Your task to perform on an android device: make emails show in primary in the gmail app Image 0: 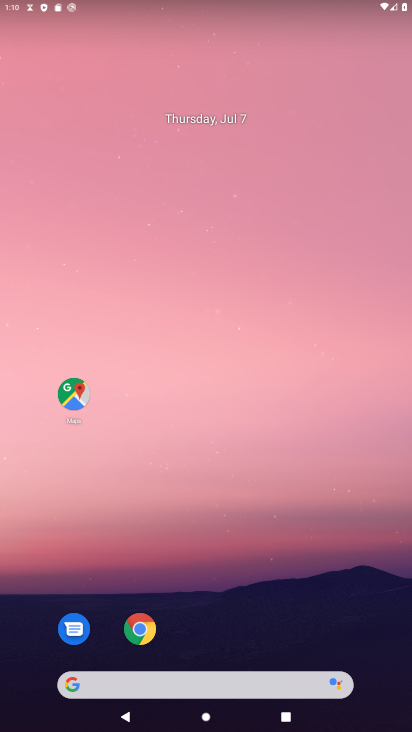
Step 0: drag from (219, 579) to (262, 54)
Your task to perform on an android device: make emails show in primary in the gmail app Image 1: 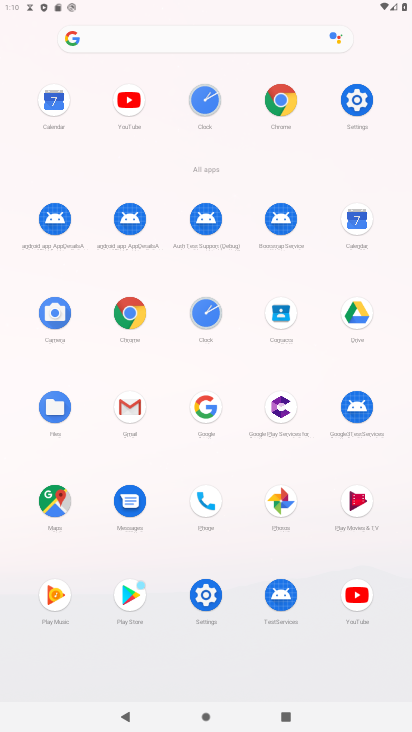
Step 1: click (135, 419)
Your task to perform on an android device: make emails show in primary in the gmail app Image 2: 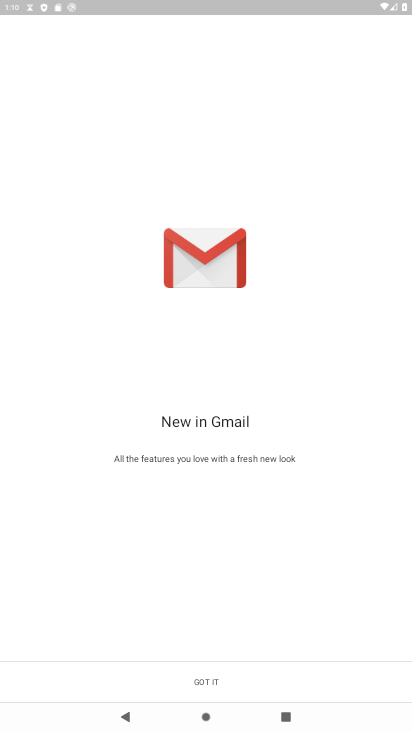
Step 2: click (211, 672)
Your task to perform on an android device: make emails show in primary in the gmail app Image 3: 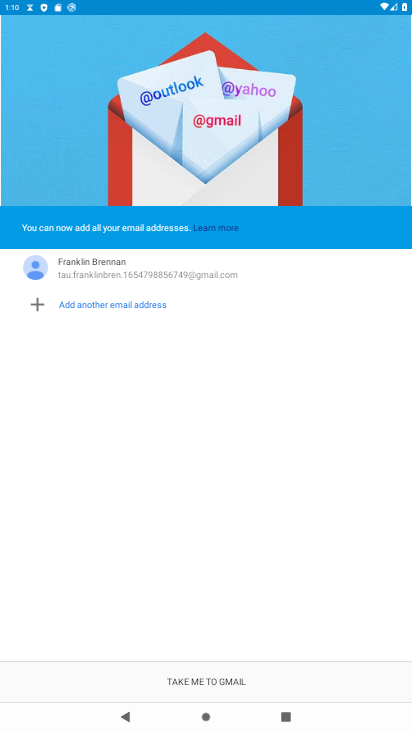
Step 3: click (231, 677)
Your task to perform on an android device: make emails show in primary in the gmail app Image 4: 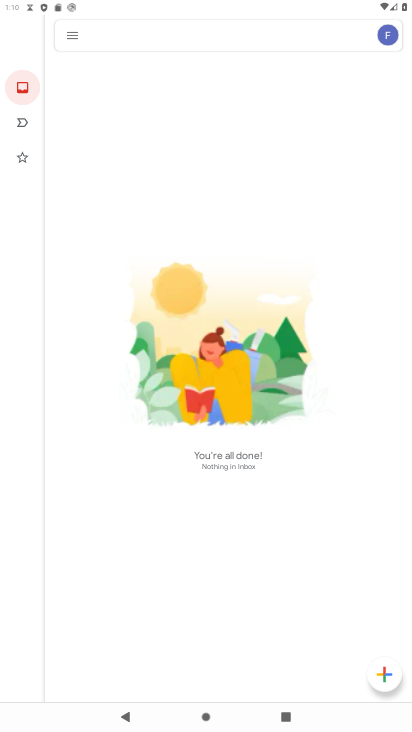
Step 4: click (80, 40)
Your task to perform on an android device: make emails show in primary in the gmail app Image 5: 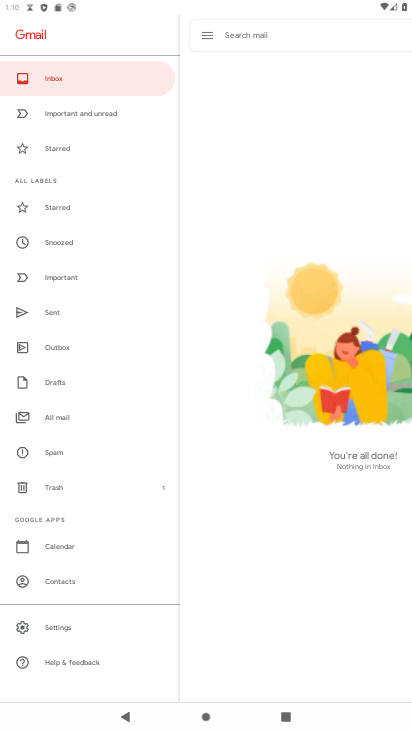
Step 5: drag from (72, 625) to (68, 514)
Your task to perform on an android device: make emails show in primary in the gmail app Image 6: 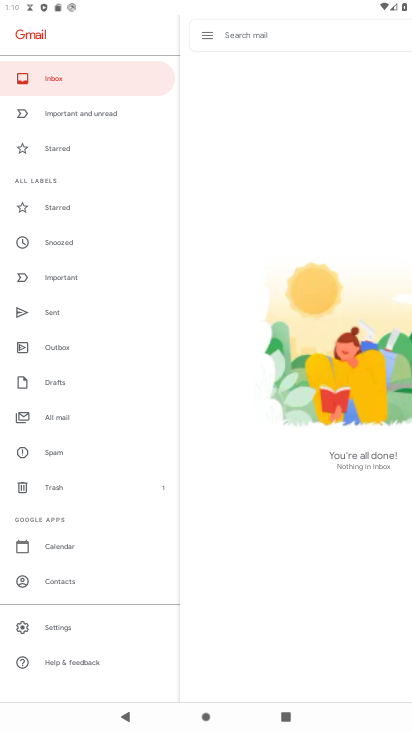
Step 6: click (60, 630)
Your task to perform on an android device: make emails show in primary in the gmail app Image 7: 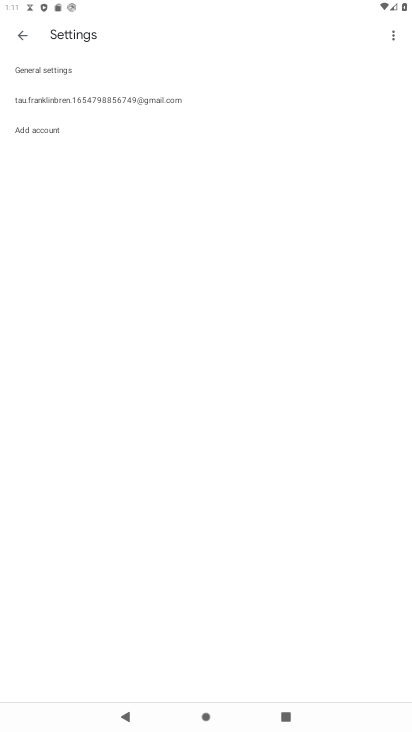
Step 7: click (72, 101)
Your task to perform on an android device: make emails show in primary in the gmail app Image 8: 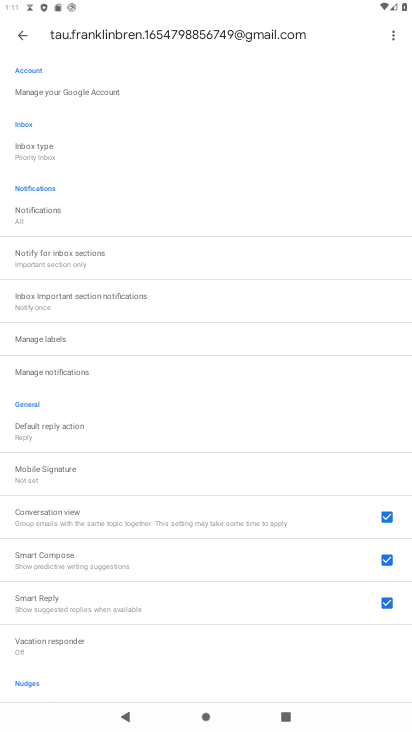
Step 8: click (52, 149)
Your task to perform on an android device: make emails show in primary in the gmail app Image 9: 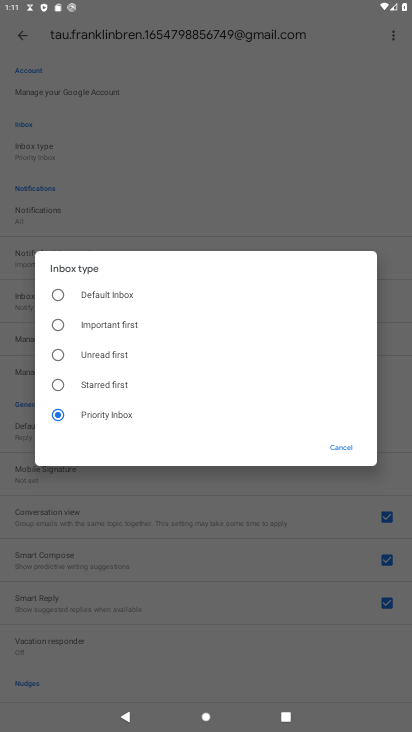
Step 9: click (124, 296)
Your task to perform on an android device: make emails show in primary in the gmail app Image 10: 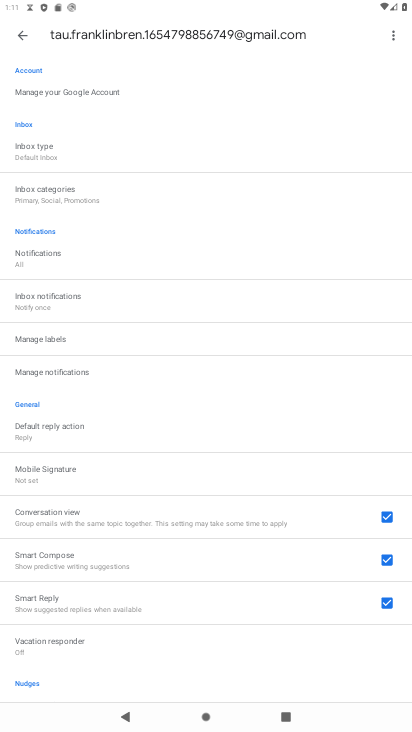
Step 10: click (74, 195)
Your task to perform on an android device: make emails show in primary in the gmail app Image 11: 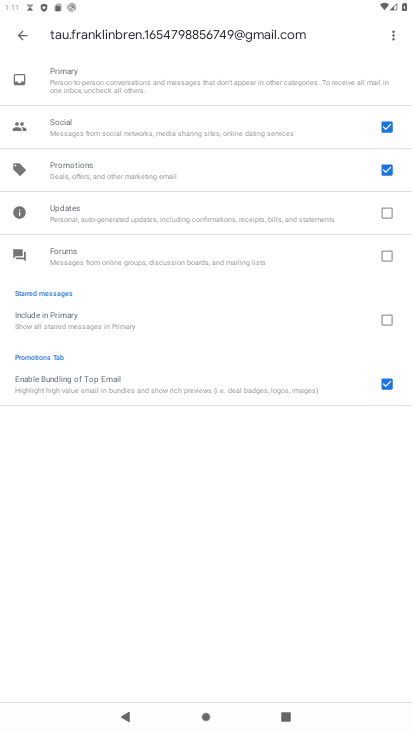
Step 11: click (382, 172)
Your task to perform on an android device: make emails show in primary in the gmail app Image 12: 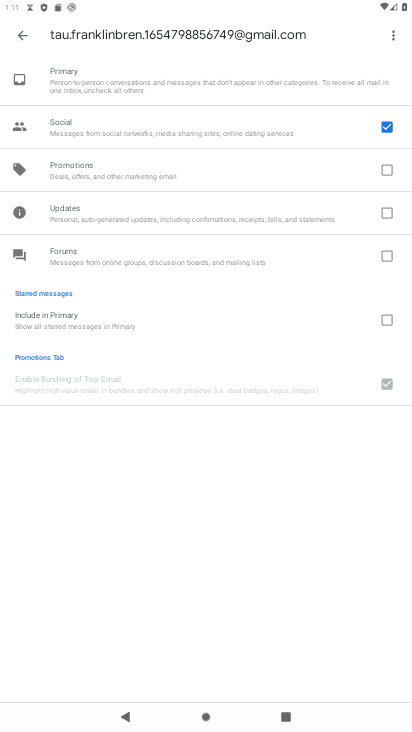
Step 12: click (392, 123)
Your task to perform on an android device: make emails show in primary in the gmail app Image 13: 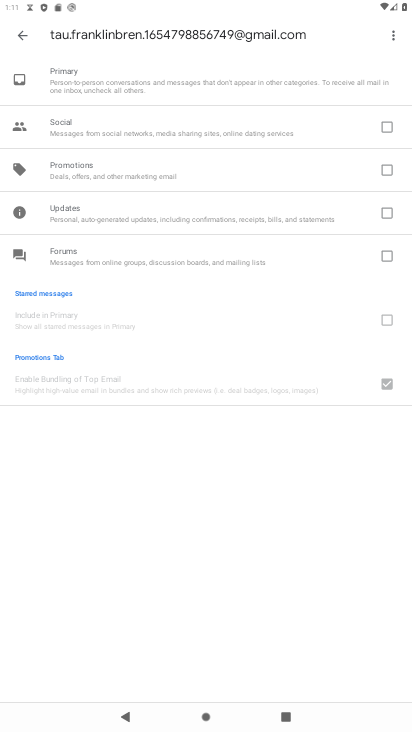
Step 13: task complete